Your task to perform on an android device: turn on airplane mode Image 0: 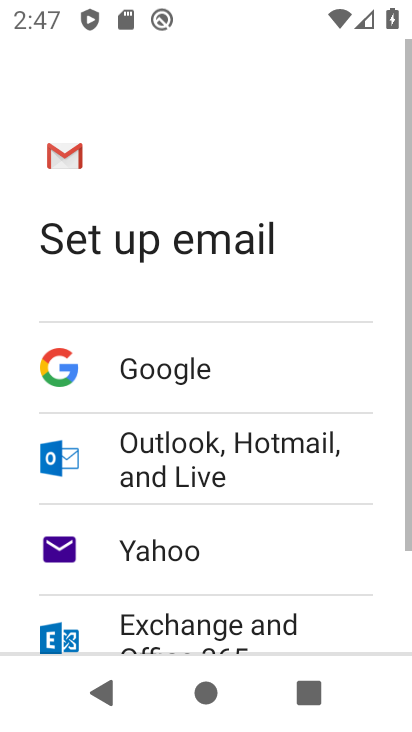
Step 0: press home button
Your task to perform on an android device: turn on airplane mode Image 1: 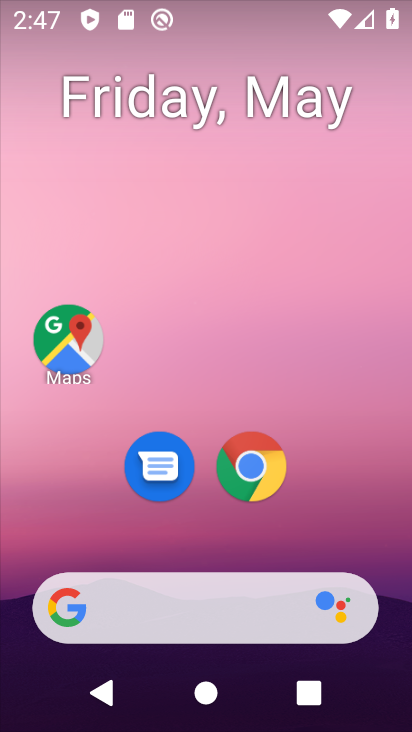
Step 1: drag from (248, 155) to (248, 452)
Your task to perform on an android device: turn on airplane mode Image 2: 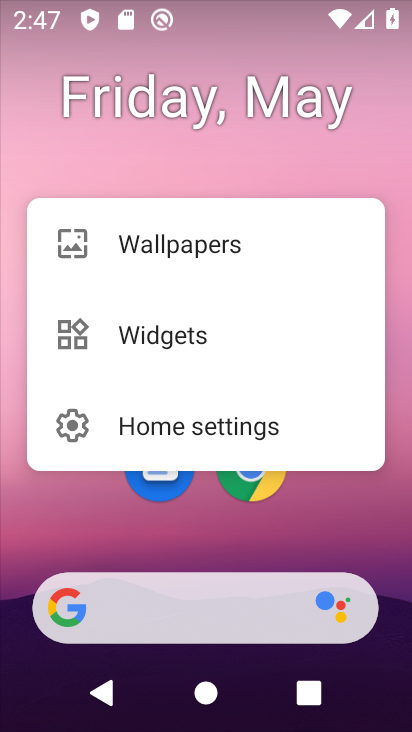
Step 2: drag from (231, 5) to (225, 403)
Your task to perform on an android device: turn on airplane mode Image 3: 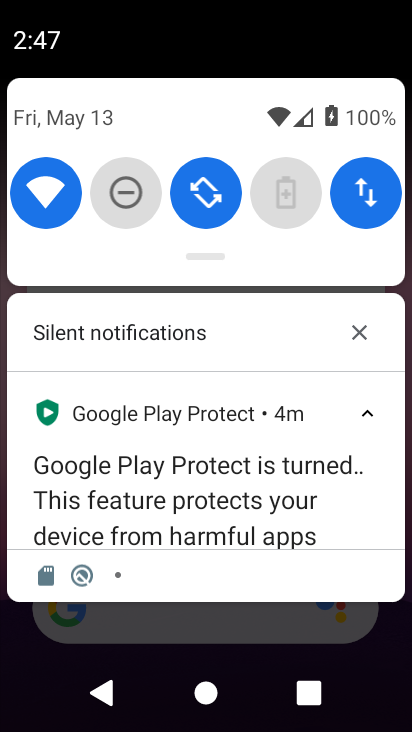
Step 3: drag from (256, 341) to (252, 664)
Your task to perform on an android device: turn on airplane mode Image 4: 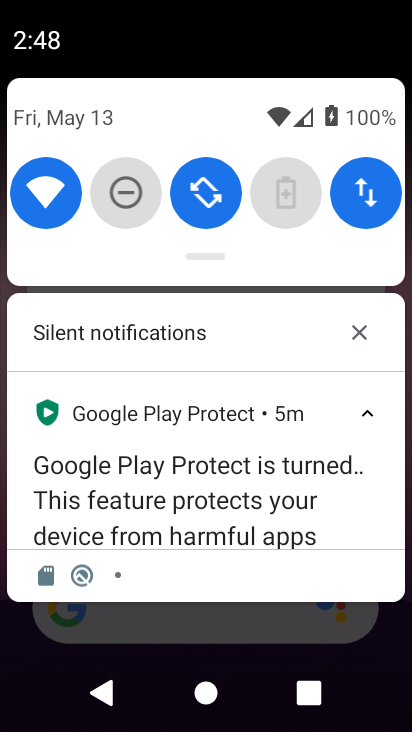
Step 4: drag from (263, 403) to (212, 718)
Your task to perform on an android device: turn on airplane mode Image 5: 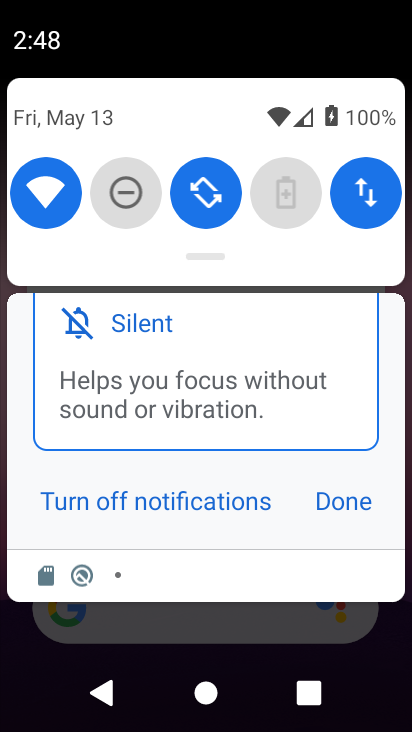
Step 5: drag from (201, 242) to (212, 666)
Your task to perform on an android device: turn on airplane mode Image 6: 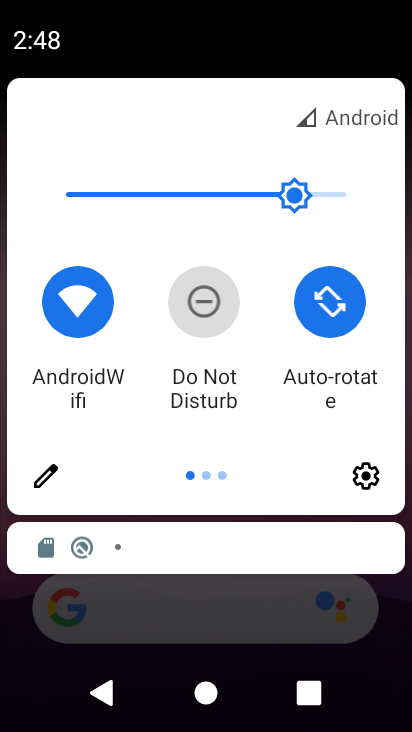
Step 6: drag from (345, 323) to (33, 314)
Your task to perform on an android device: turn on airplane mode Image 7: 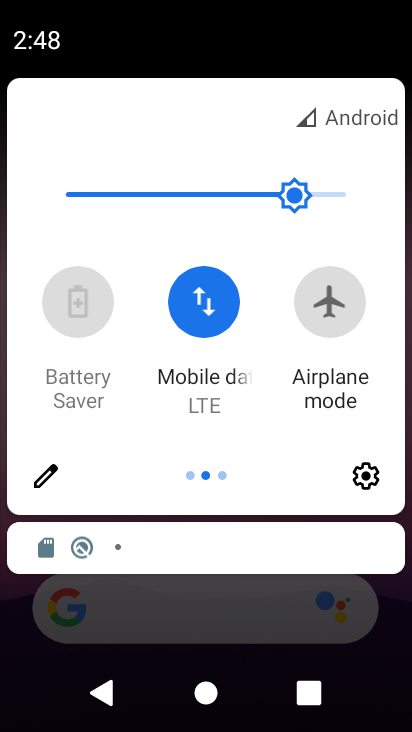
Step 7: click (326, 319)
Your task to perform on an android device: turn on airplane mode Image 8: 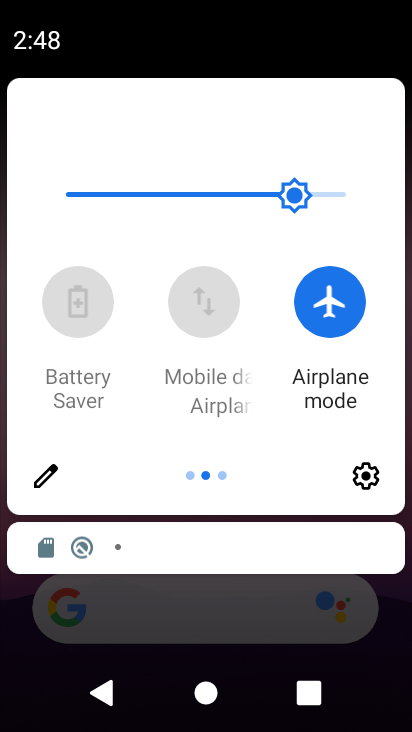
Step 8: task complete